Your task to perform on an android device: turn on priority inbox in the gmail app Image 0: 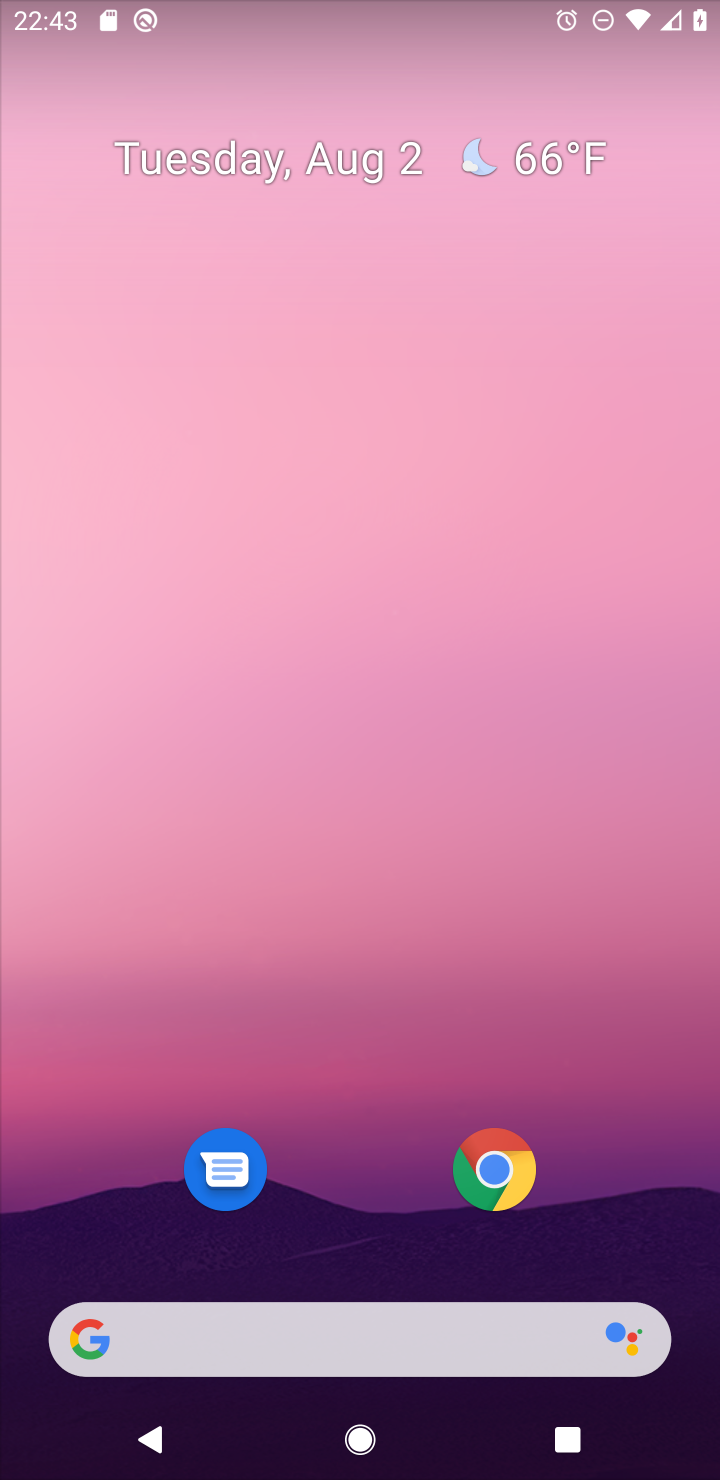
Step 0: drag from (406, 1444) to (398, 130)
Your task to perform on an android device: turn on priority inbox in the gmail app Image 1: 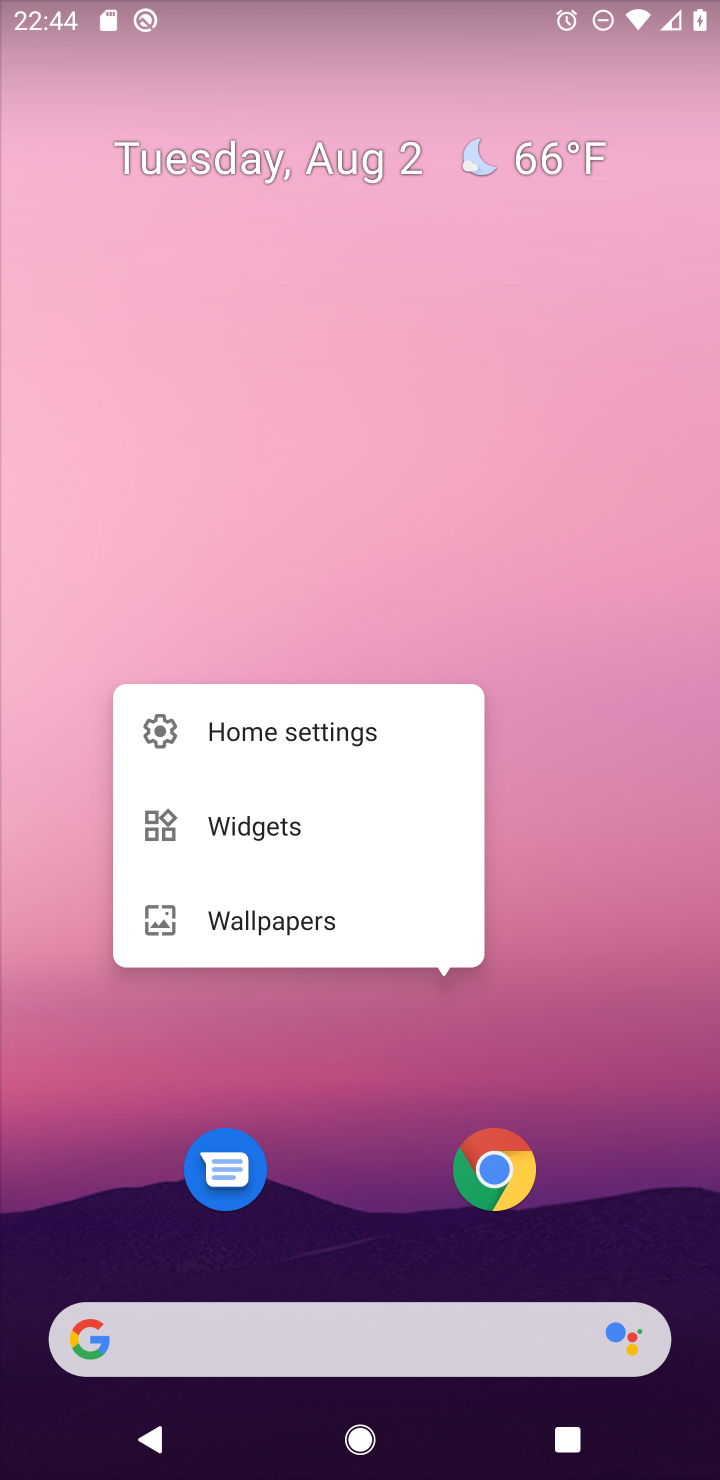
Step 1: click (397, 1079)
Your task to perform on an android device: turn on priority inbox in the gmail app Image 2: 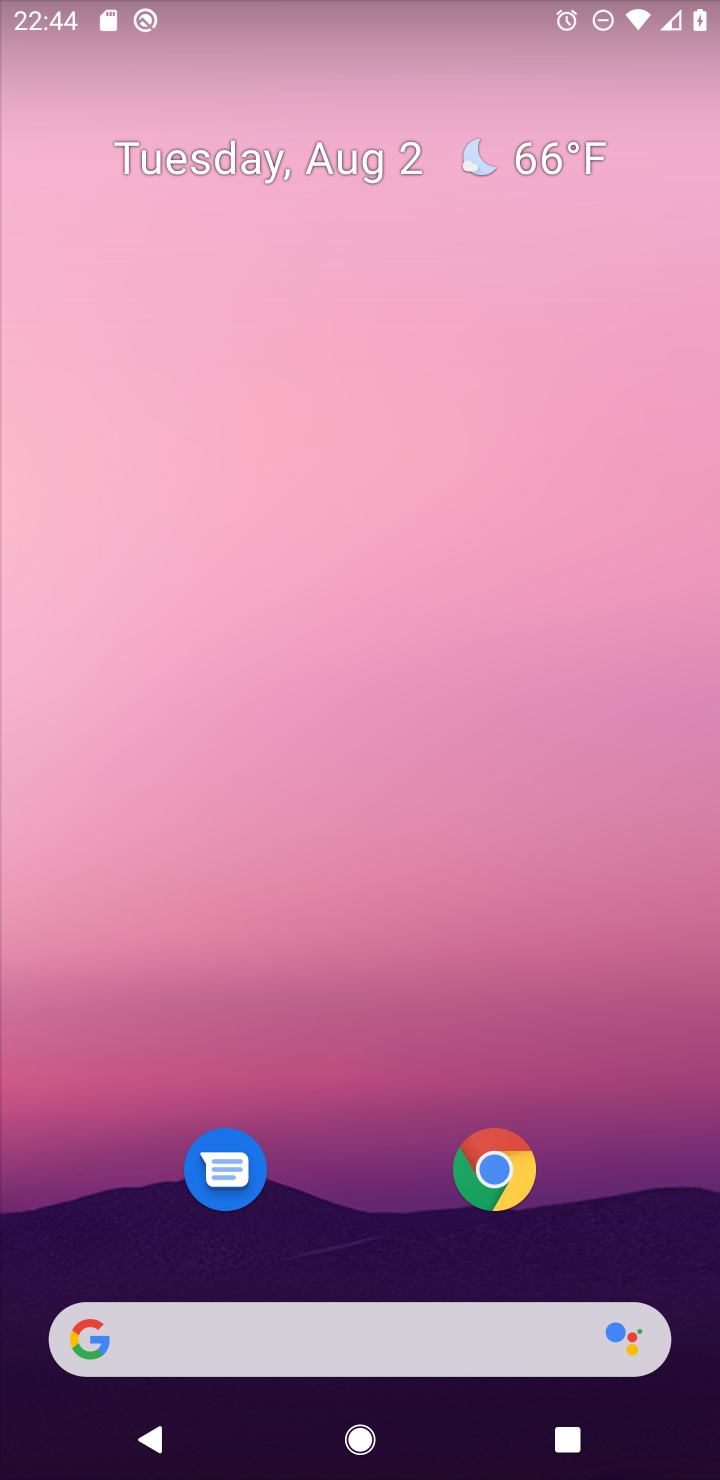
Step 2: drag from (340, 770) to (343, 39)
Your task to perform on an android device: turn on priority inbox in the gmail app Image 3: 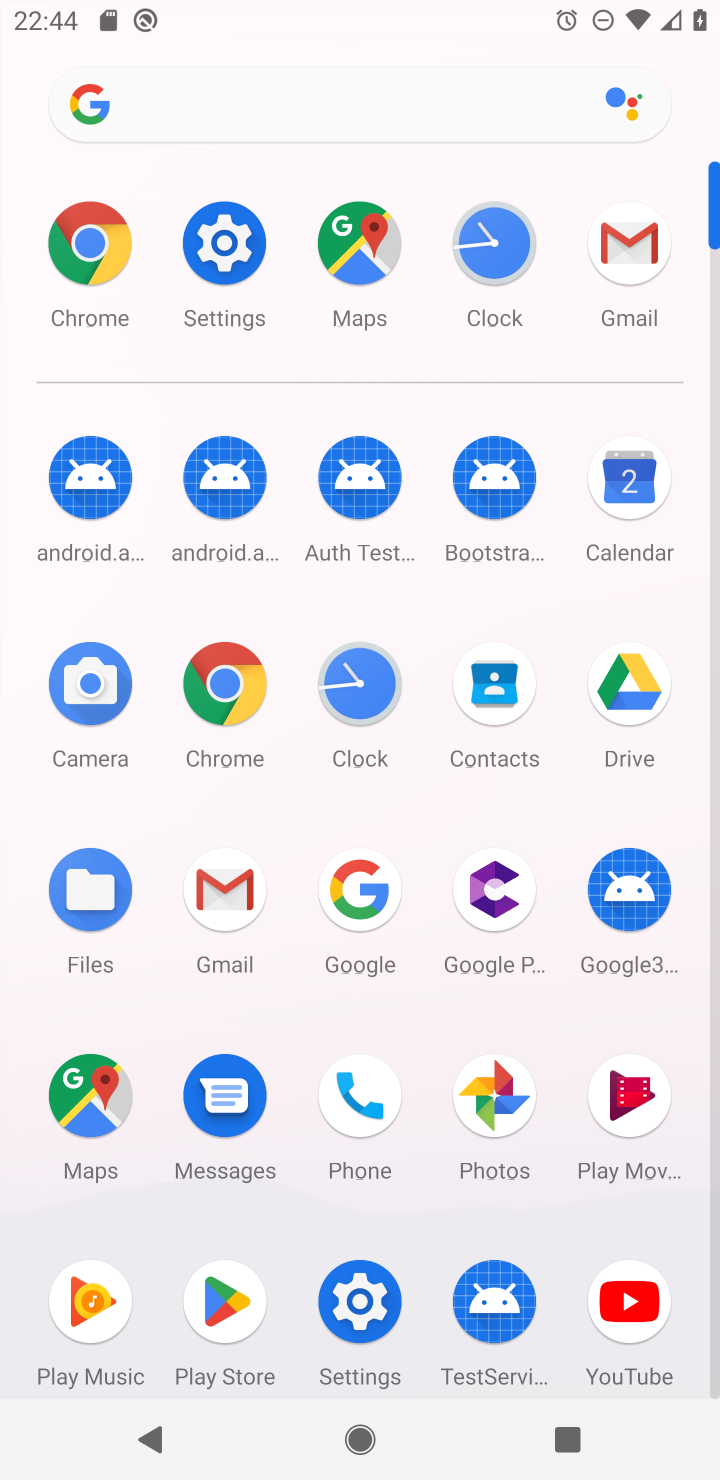
Step 3: click (223, 894)
Your task to perform on an android device: turn on priority inbox in the gmail app Image 4: 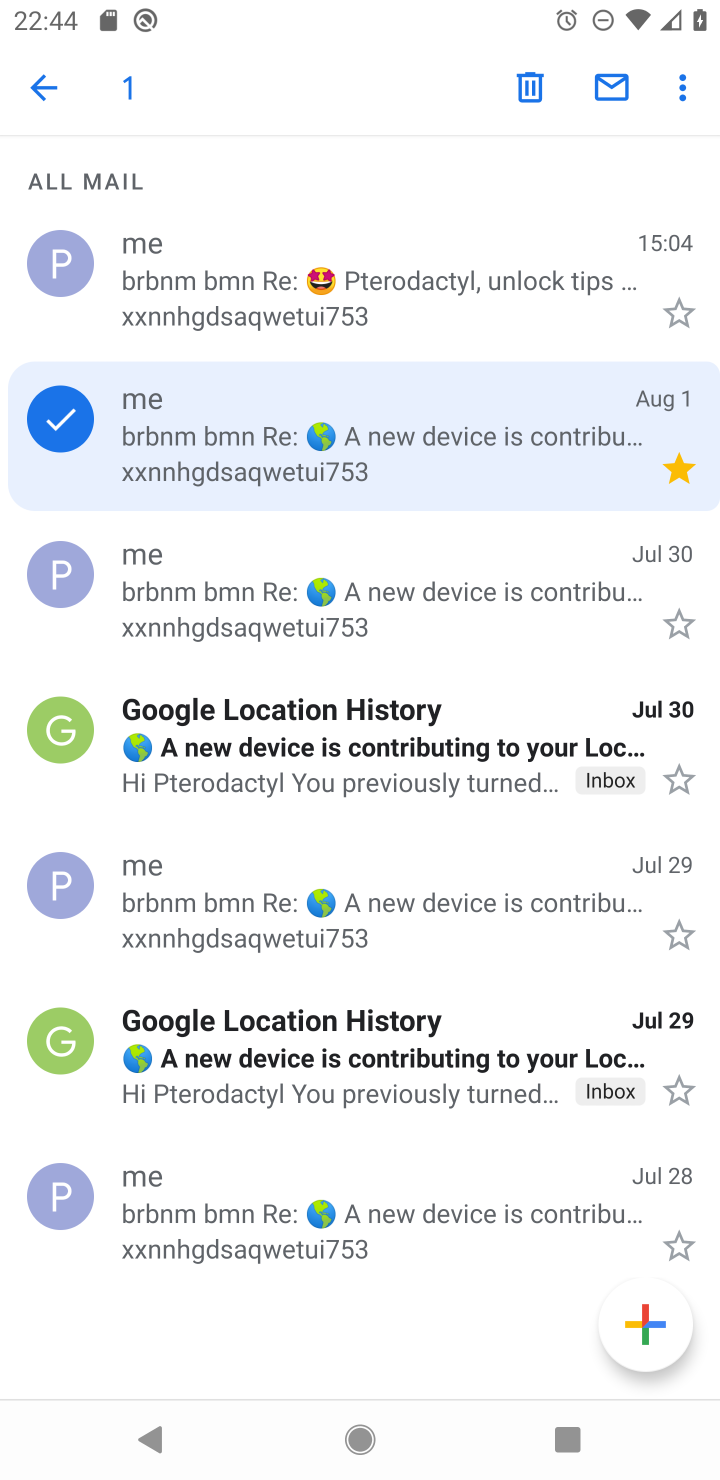
Step 4: click (42, 94)
Your task to perform on an android device: turn on priority inbox in the gmail app Image 5: 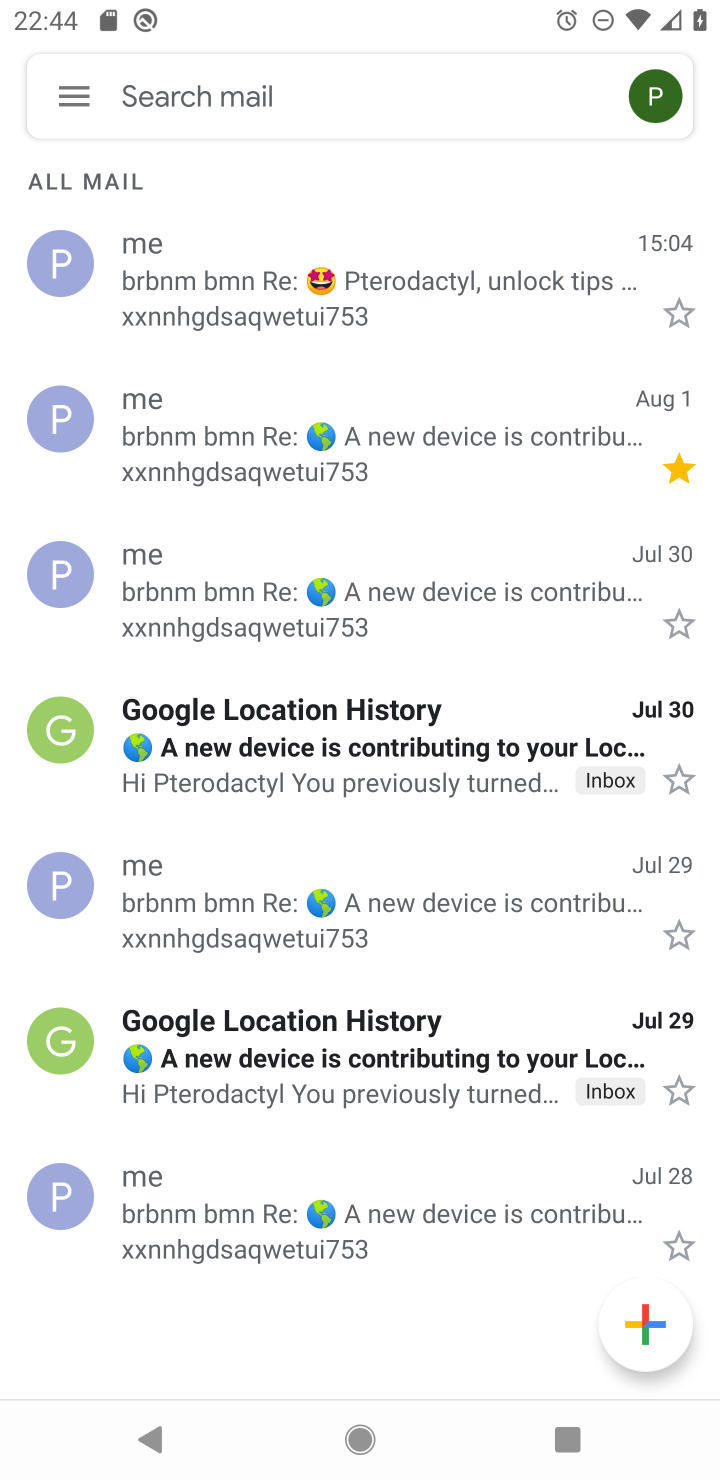
Step 5: click (72, 97)
Your task to perform on an android device: turn on priority inbox in the gmail app Image 6: 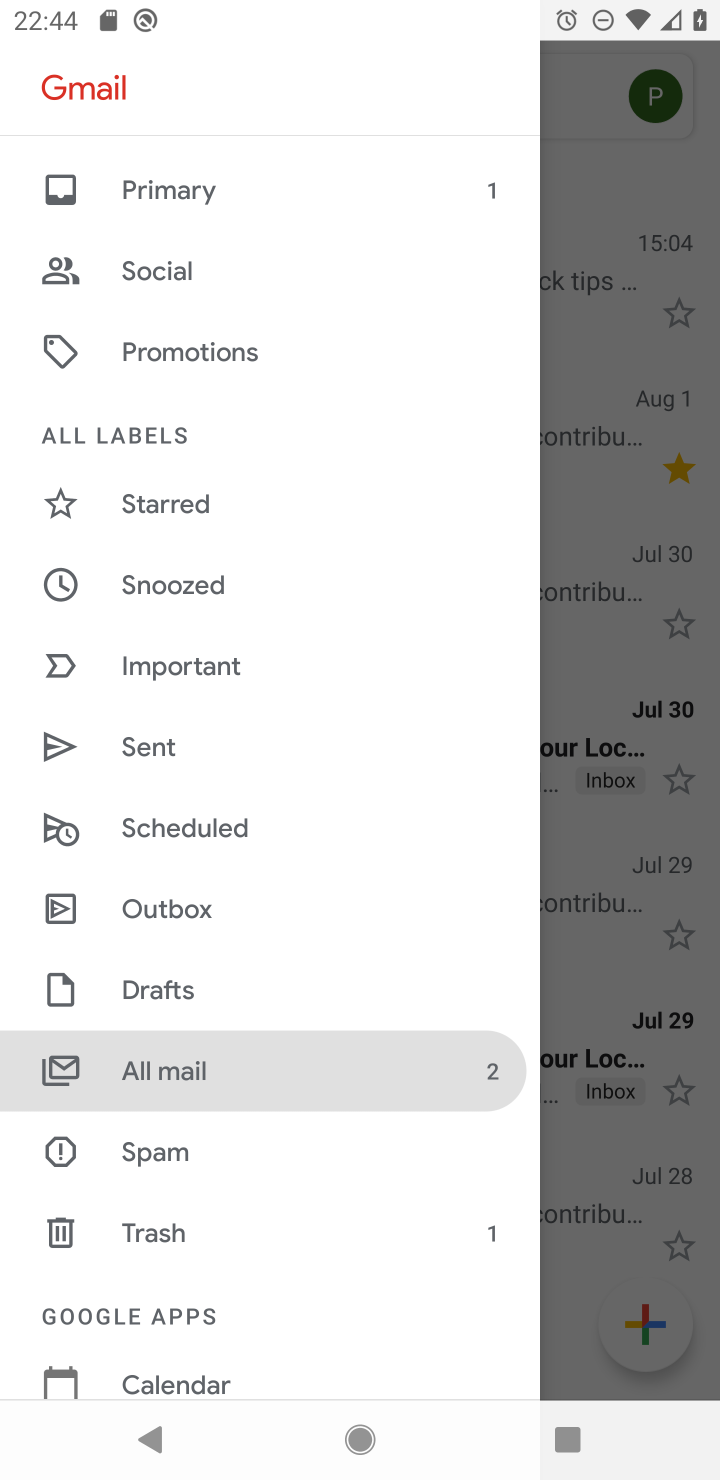
Step 6: drag from (175, 1233) to (173, 591)
Your task to perform on an android device: turn on priority inbox in the gmail app Image 7: 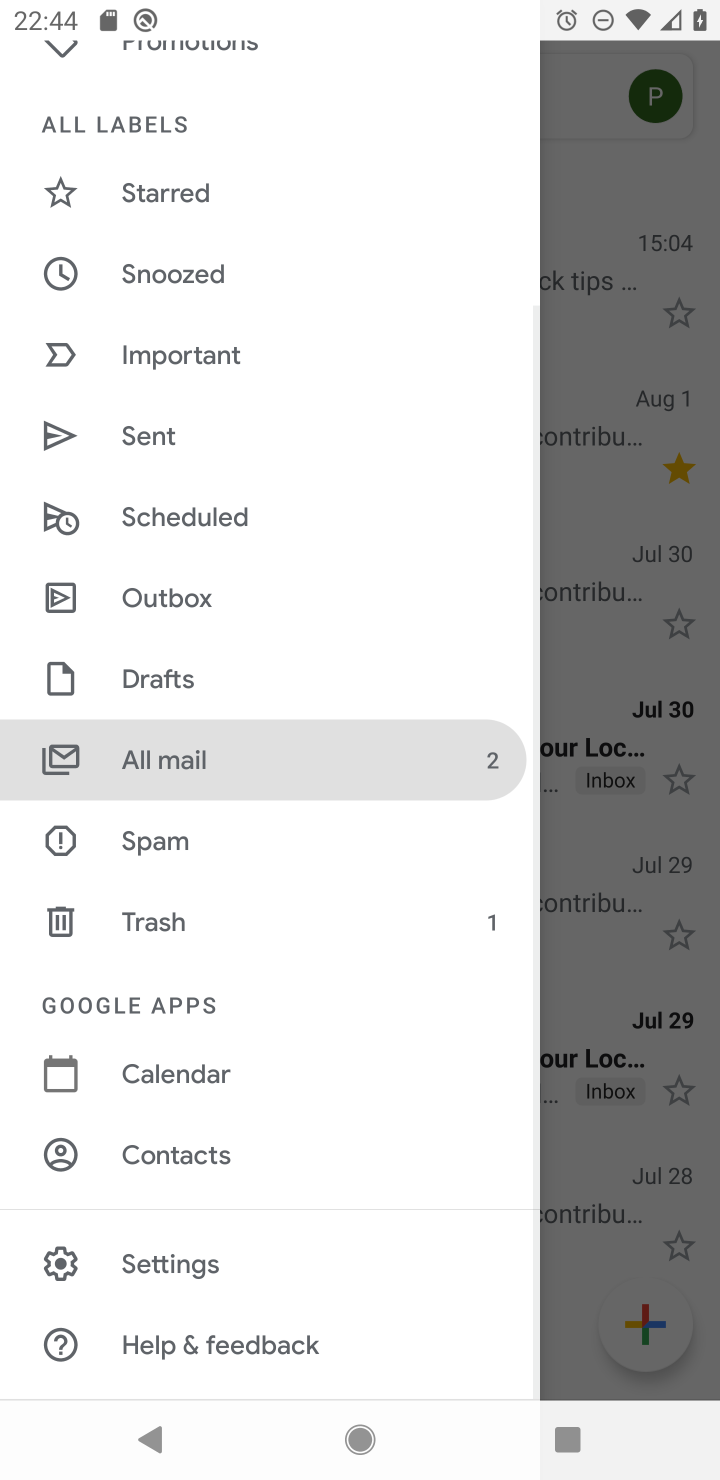
Step 7: click (173, 1261)
Your task to perform on an android device: turn on priority inbox in the gmail app Image 8: 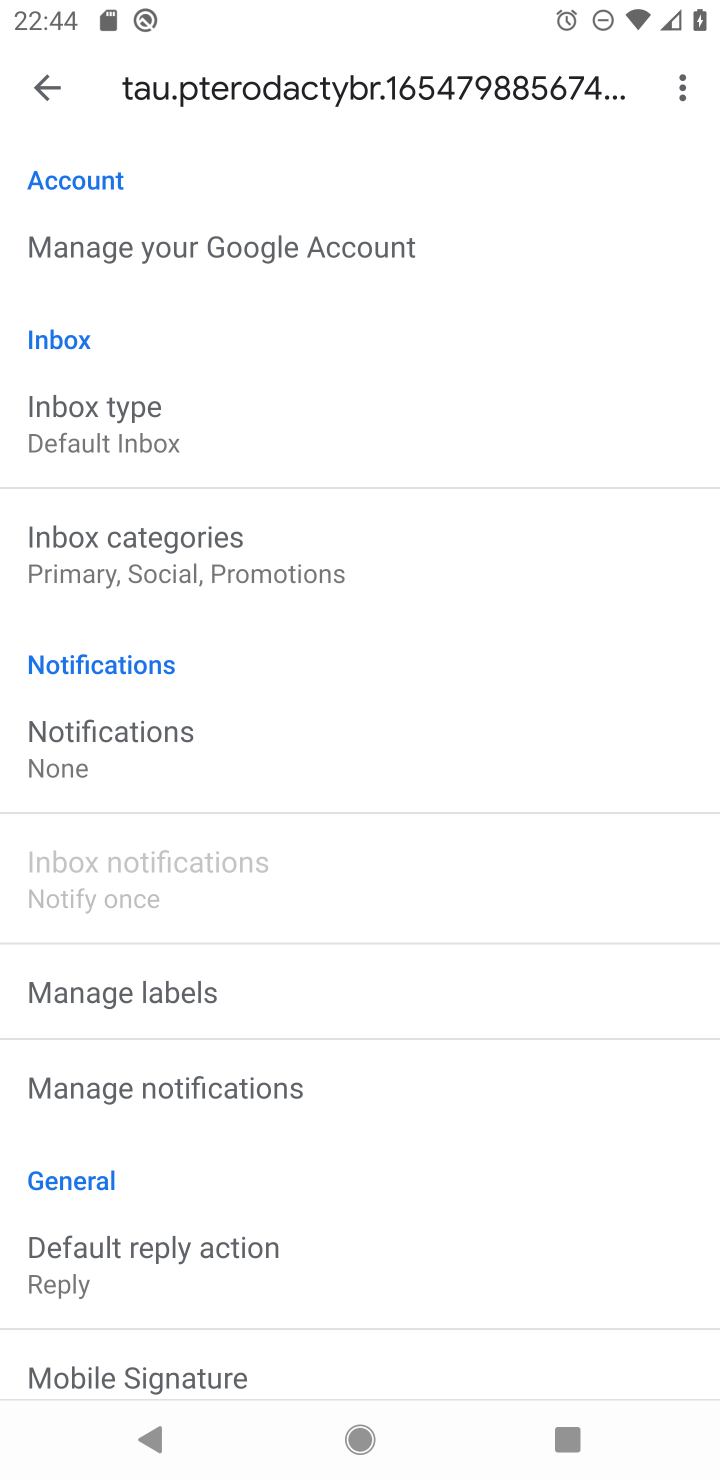
Step 8: click (136, 423)
Your task to perform on an android device: turn on priority inbox in the gmail app Image 9: 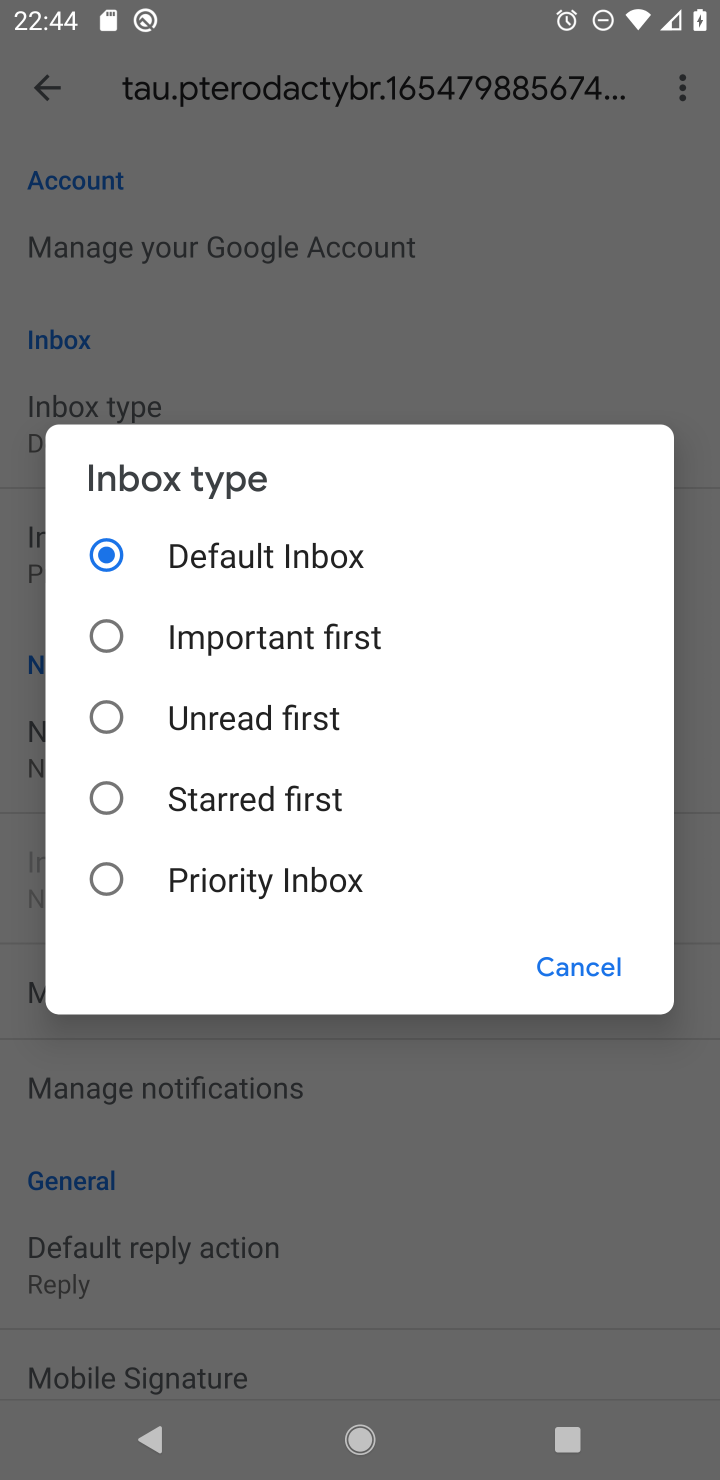
Step 9: click (98, 877)
Your task to perform on an android device: turn on priority inbox in the gmail app Image 10: 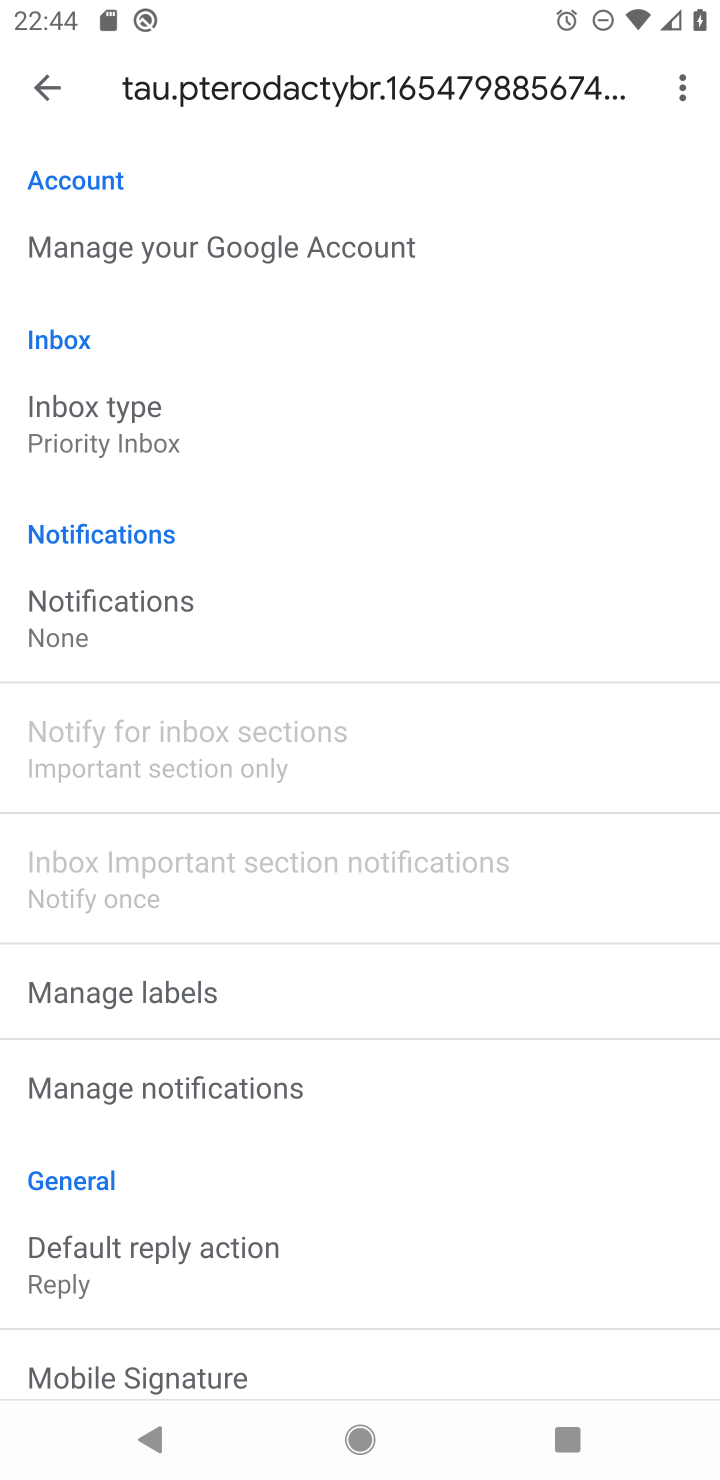
Step 10: task complete